Your task to perform on an android device: see sites visited before in the chrome app Image 0: 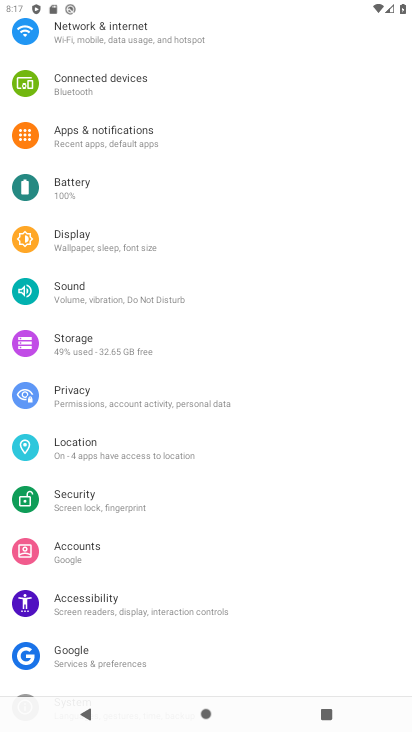
Step 0: press home button
Your task to perform on an android device: see sites visited before in the chrome app Image 1: 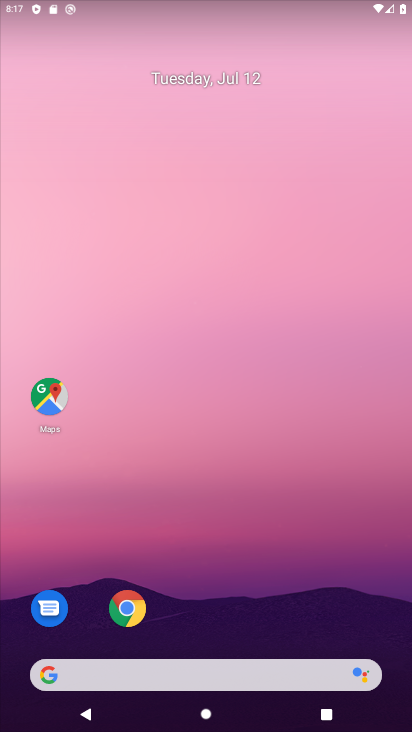
Step 1: click (137, 603)
Your task to perform on an android device: see sites visited before in the chrome app Image 2: 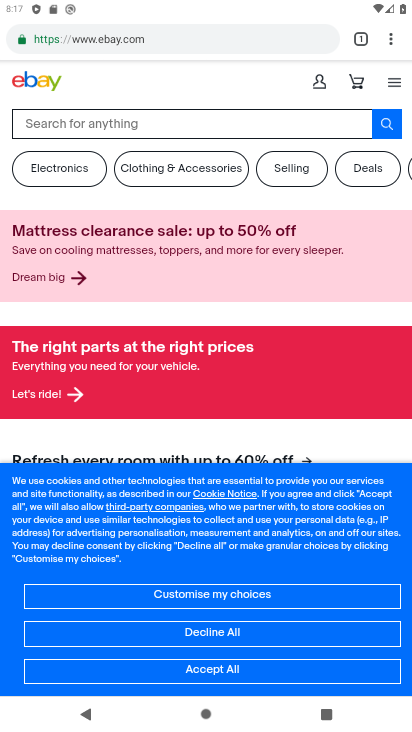
Step 2: click (391, 31)
Your task to perform on an android device: see sites visited before in the chrome app Image 3: 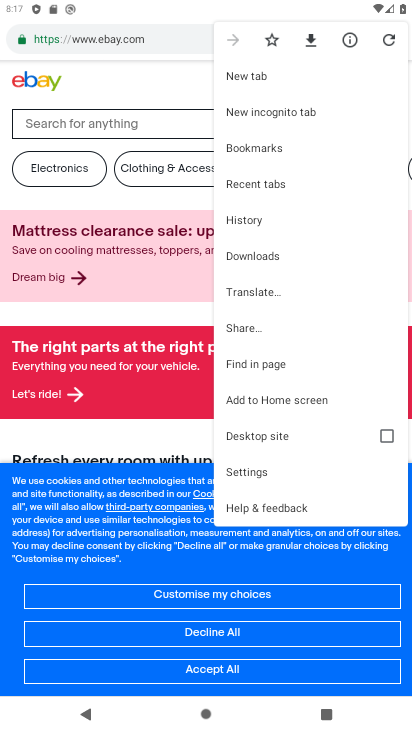
Step 3: click (244, 229)
Your task to perform on an android device: see sites visited before in the chrome app Image 4: 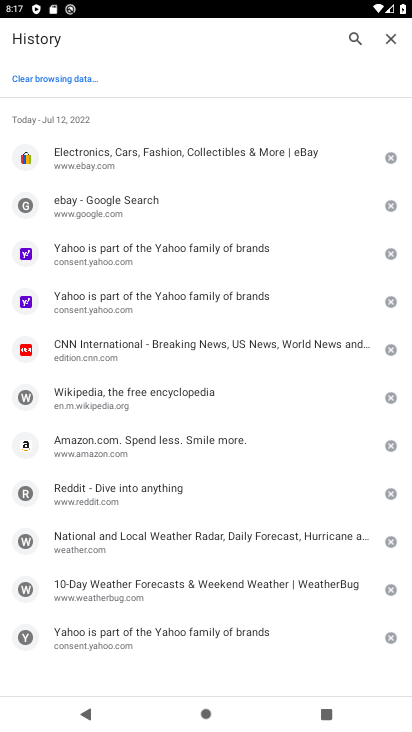
Step 4: task complete